Your task to perform on an android device: Open CNN.com Image 0: 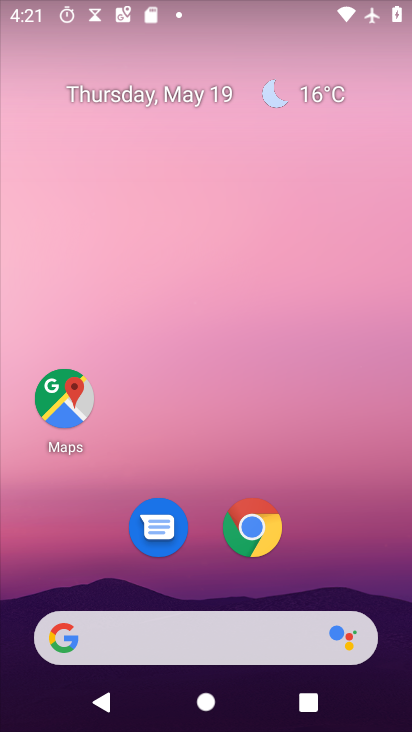
Step 0: click (267, 522)
Your task to perform on an android device: Open CNN.com Image 1: 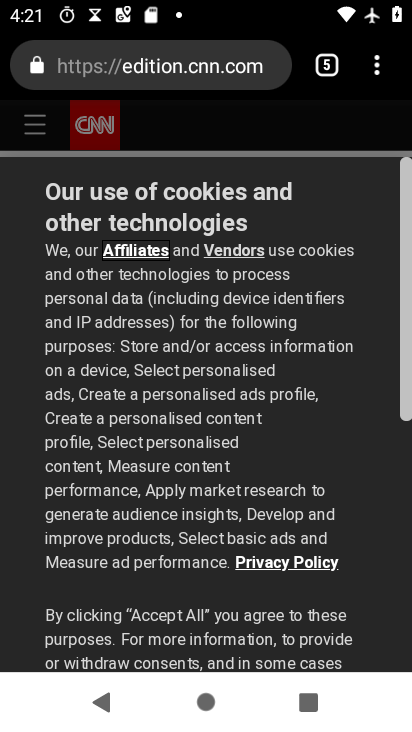
Step 1: task complete